Your task to perform on an android device: stop showing notifications on the lock screen Image 0: 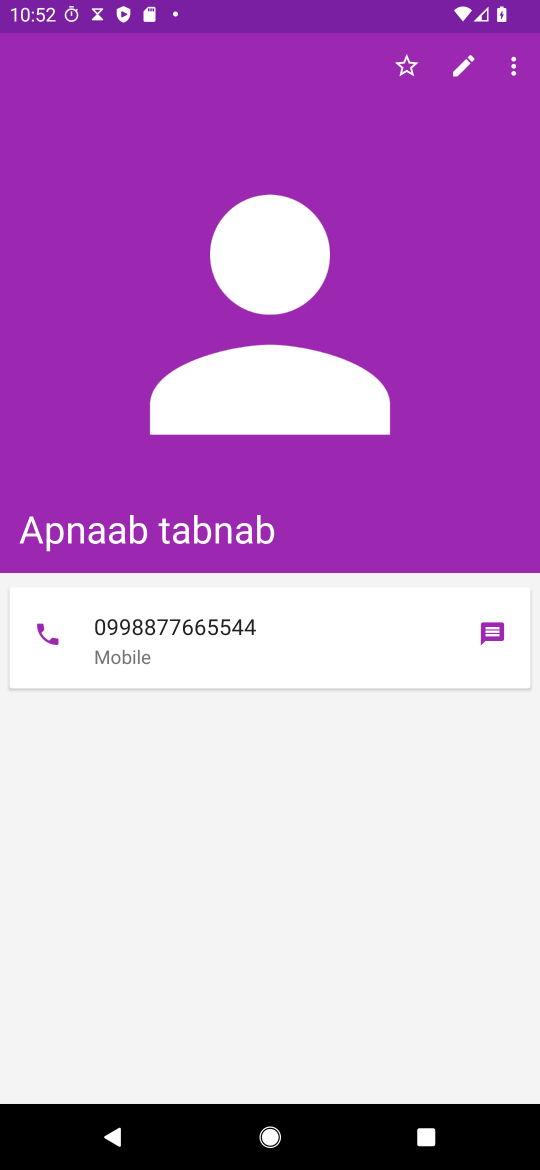
Step 0: press home button
Your task to perform on an android device: stop showing notifications on the lock screen Image 1: 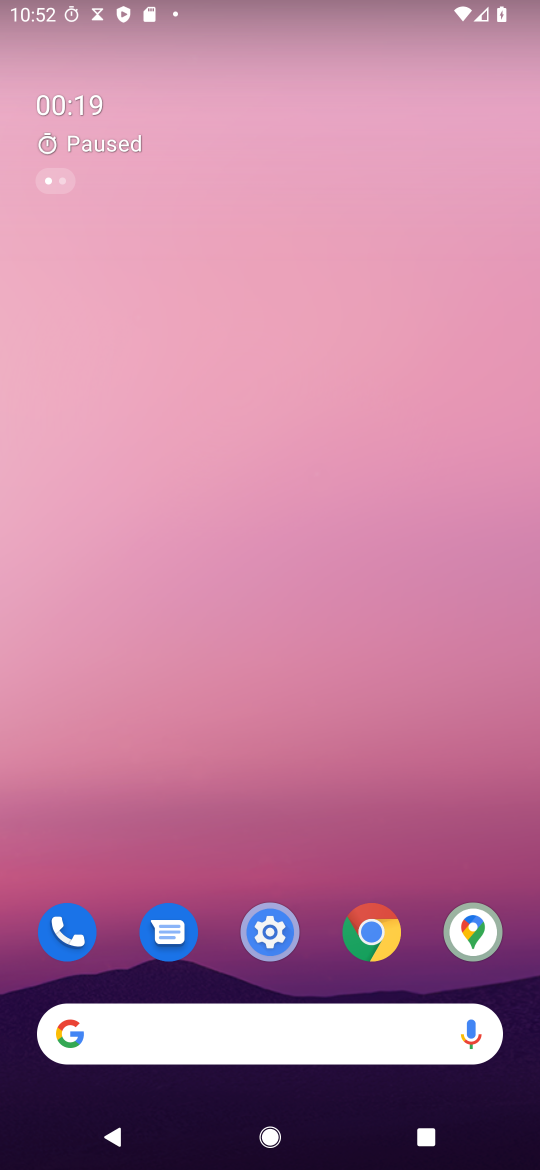
Step 1: drag from (187, 1025) to (257, 299)
Your task to perform on an android device: stop showing notifications on the lock screen Image 2: 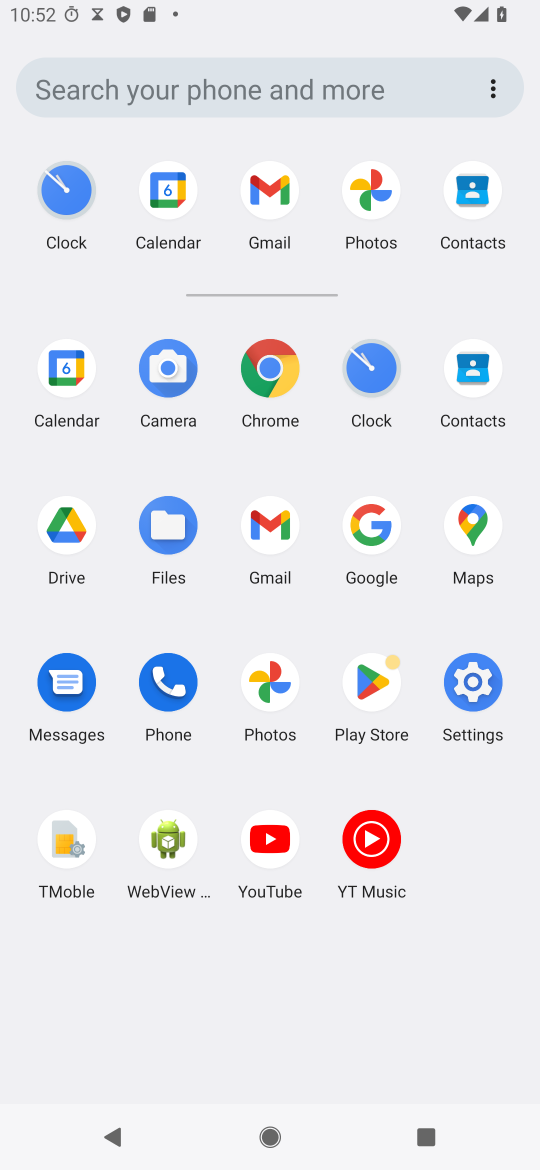
Step 2: click (473, 683)
Your task to perform on an android device: stop showing notifications on the lock screen Image 3: 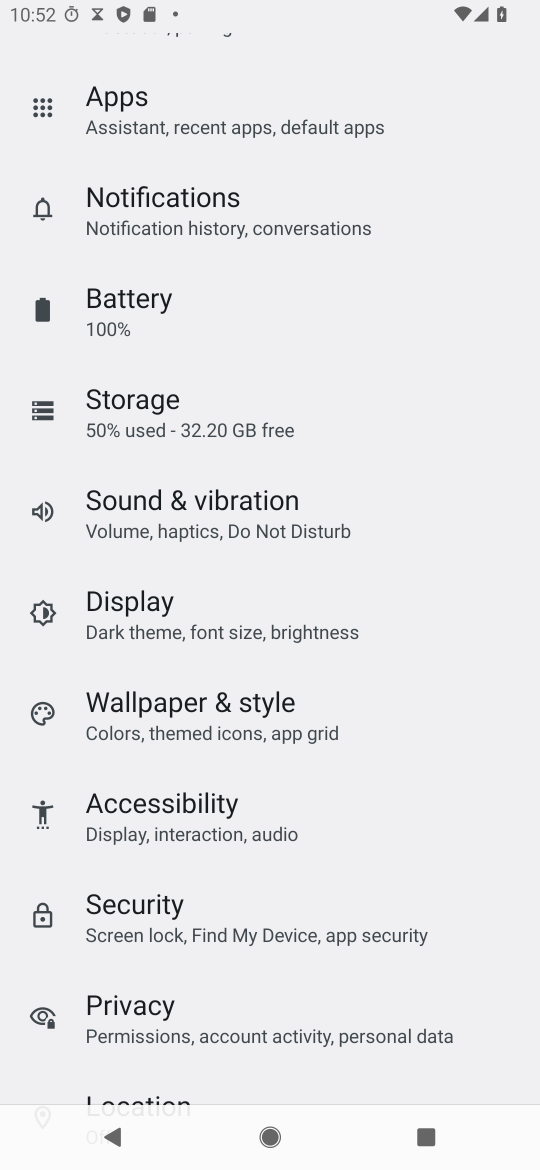
Step 3: drag from (241, 974) to (271, 891)
Your task to perform on an android device: stop showing notifications on the lock screen Image 4: 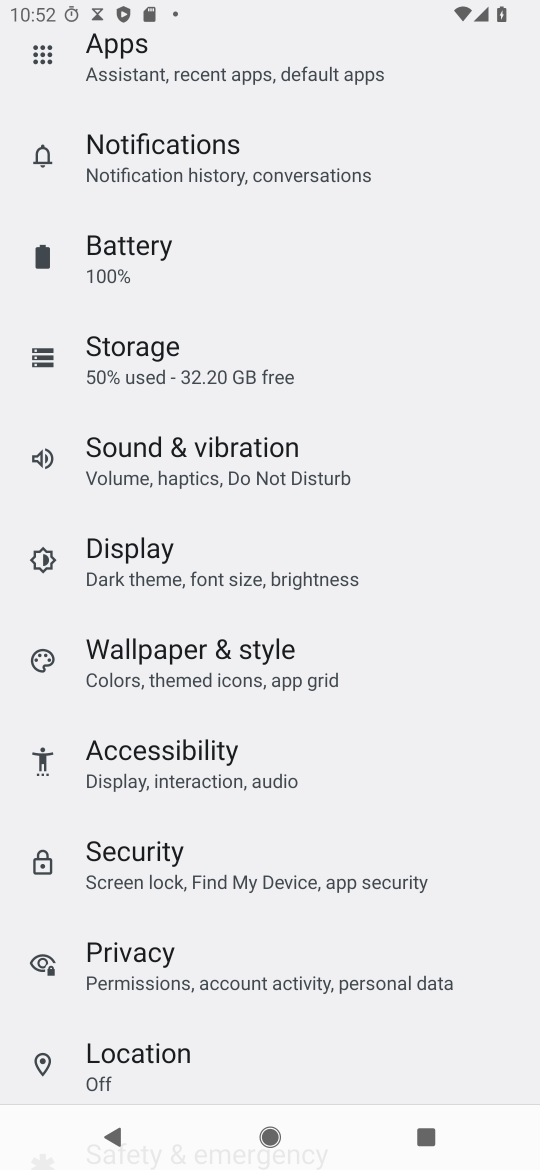
Step 4: click (194, 174)
Your task to perform on an android device: stop showing notifications on the lock screen Image 5: 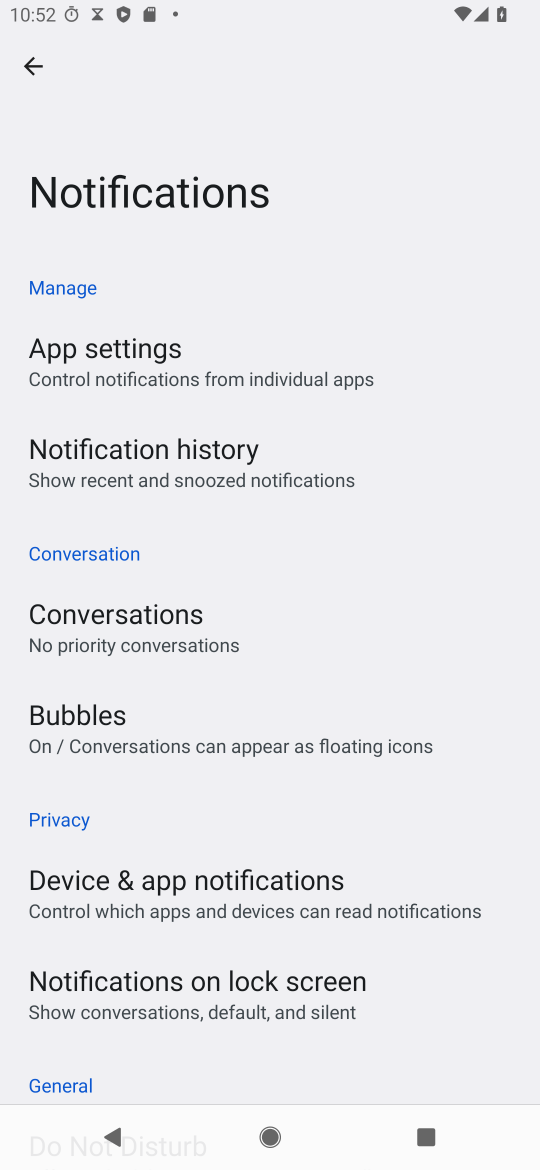
Step 5: drag from (198, 733) to (187, 464)
Your task to perform on an android device: stop showing notifications on the lock screen Image 6: 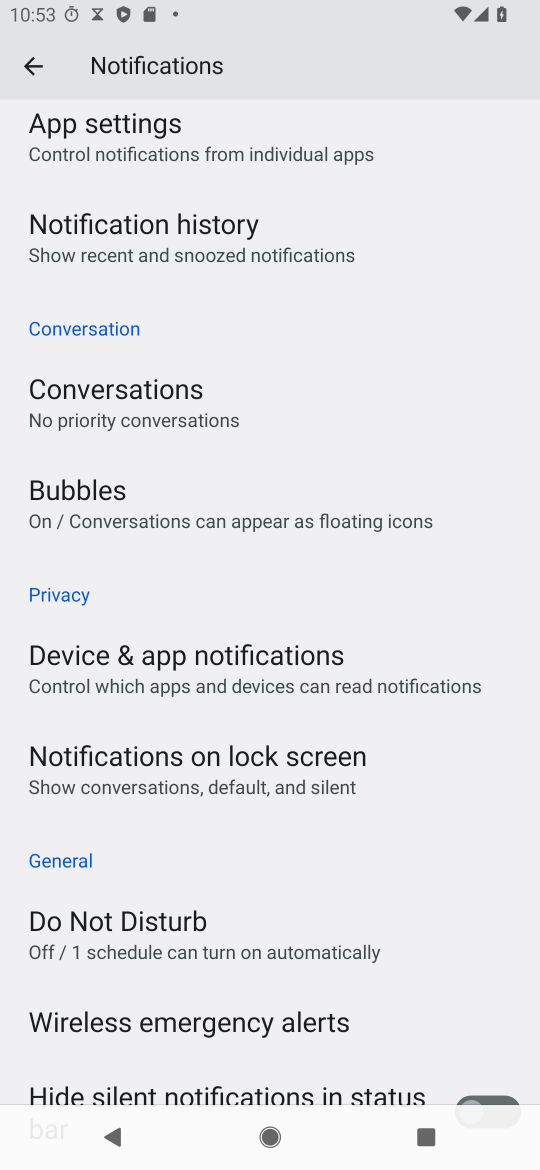
Step 6: click (295, 785)
Your task to perform on an android device: stop showing notifications on the lock screen Image 7: 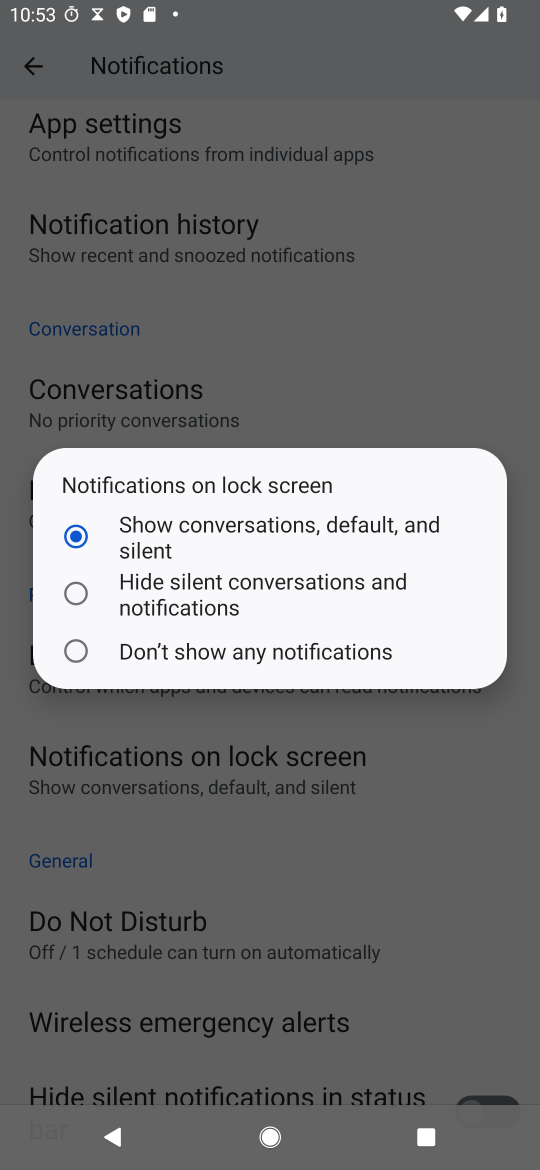
Step 7: click (72, 646)
Your task to perform on an android device: stop showing notifications on the lock screen Image 8: 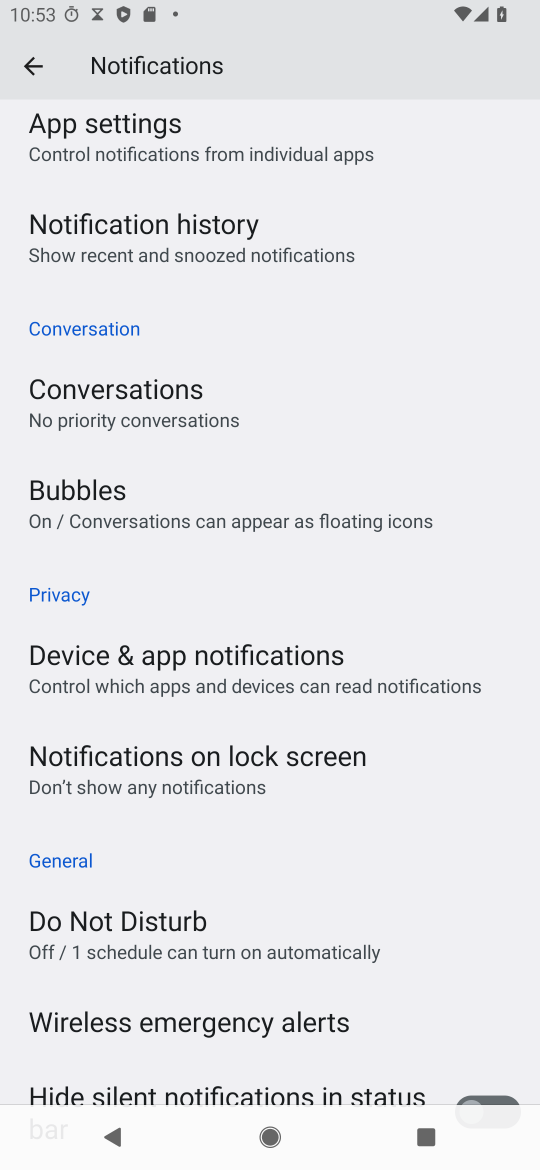
Step 8: task complete